Your task to perform on an android device: Go to network settings Image 0: 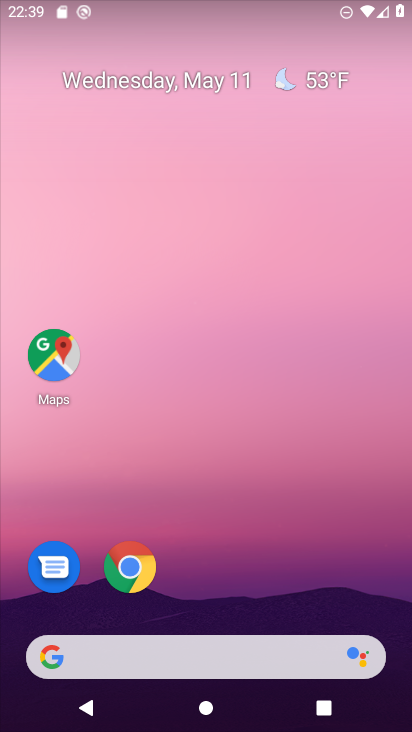
Step 0: drag from (254, 720) to (324, 201)
Your task to perform on an android device: Go to network settings Image 1: 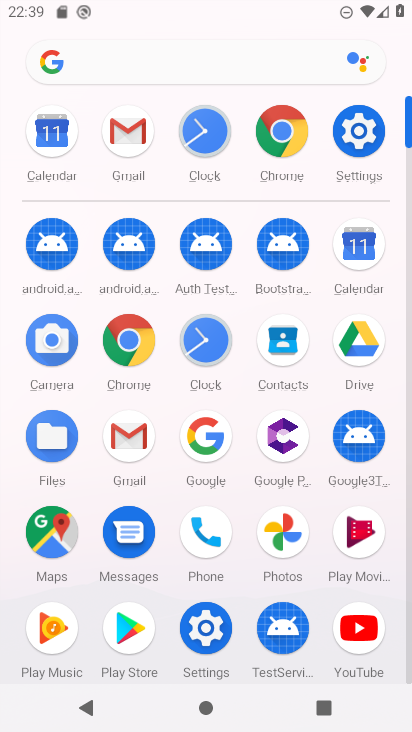
Step 1: click (376, 124)
Your task to perform on an android device: Go to network settings Image 2: 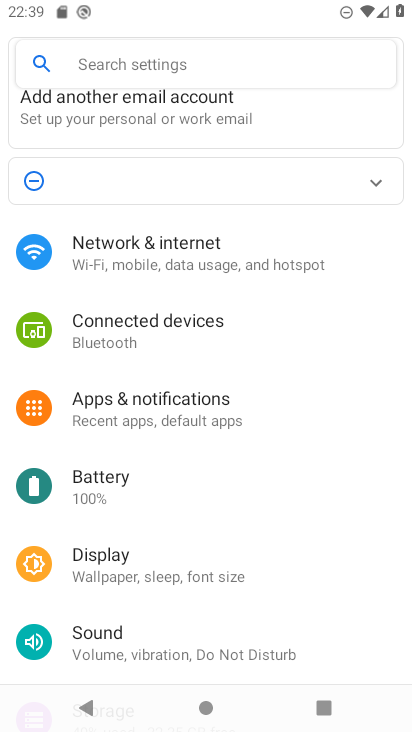
Step 2: click (215, 248)
Your task to perform on an android device: Go to network settings Image 3: 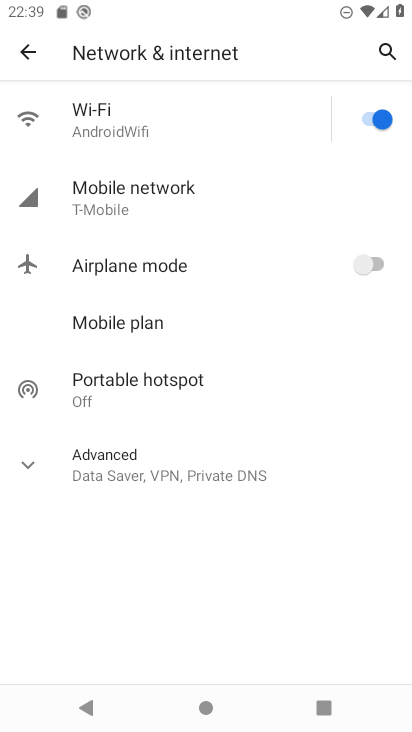
Step 3: task complete